Your task to perform on an android device: set default search engine in the chrome app Image 0: 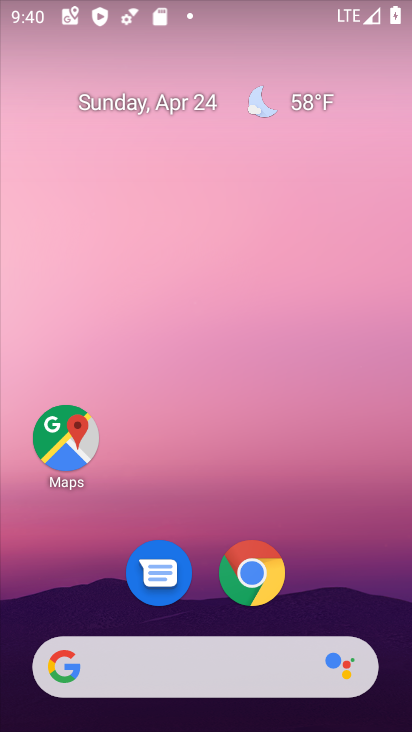
Step 0: click (251, 573)
Your task to perform on an android device: set default search engine in the chrome app Image 1: 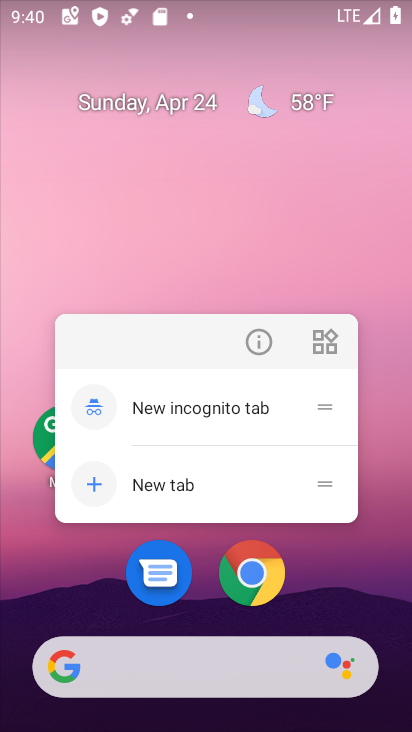
Step 1: click (251, 573)
Your task to perform on an android device: set default search engine in the chrome app Image 2: 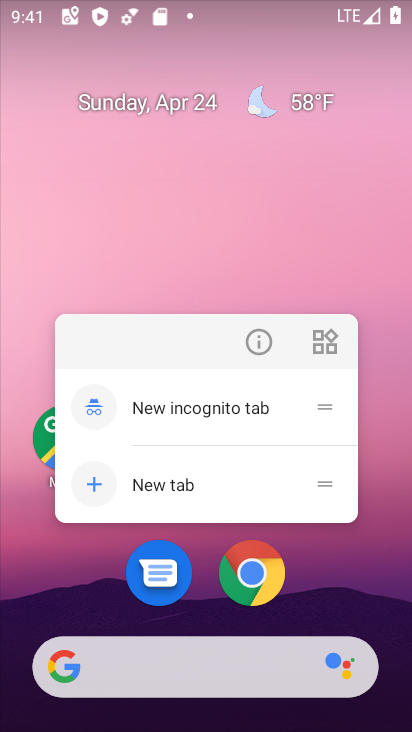
Step 2: drag from (359, 576) to (316, 45)
Your task to perform on an android device: set default search engine in the chrome app Image 3: 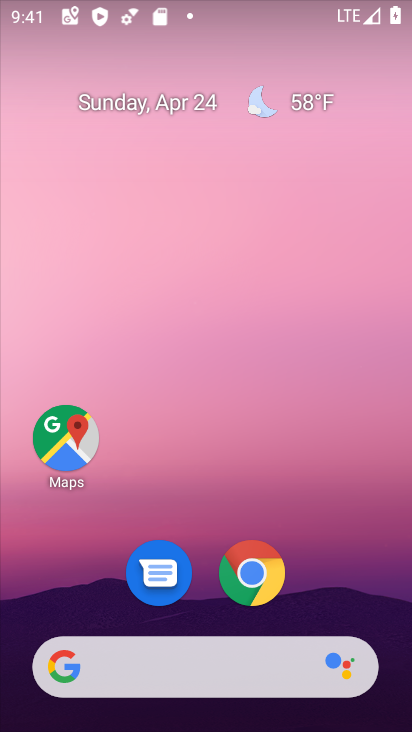
Step 3: drag from (325, 517) to (298, 176)
Your task to perform on an android device: set default search engine in the chrome app Image 4: 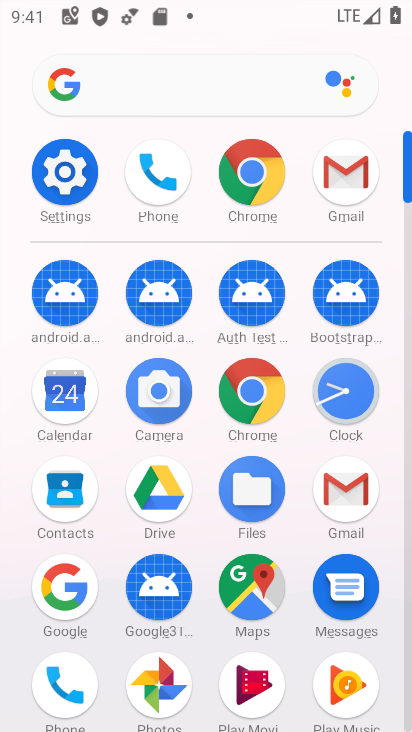
Step 4: click (258, 391)
Your task to perform on an android device: set default search engine in the chrome app Image 5: 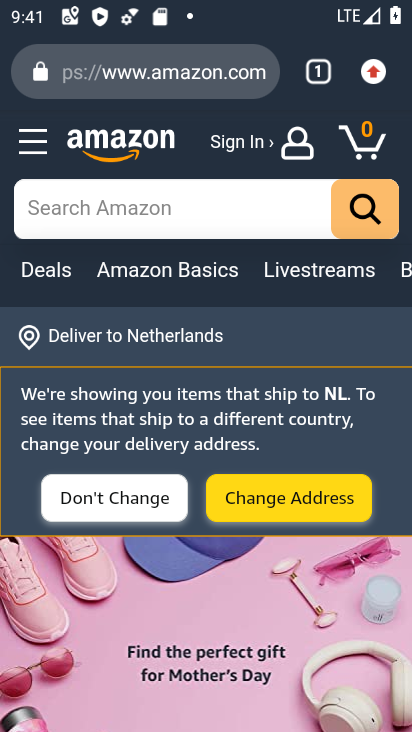
Step 5: drag from (391, 64) to (169, 551)
Your task to perform on an android device: set default search engine in the chrome app Image 6: 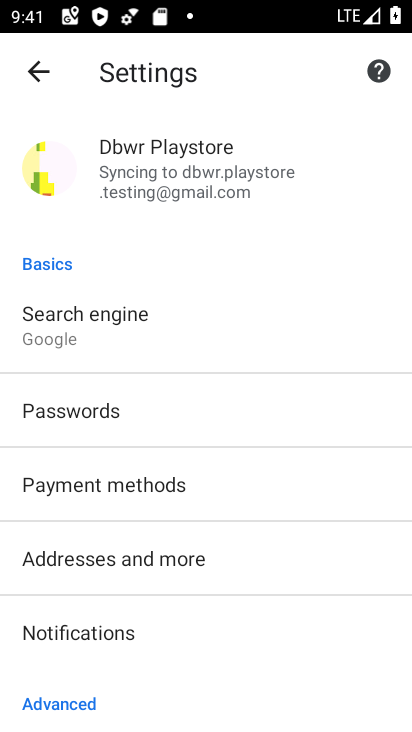
Step 6: drag from (286, 582) to (310, 202)
Your task to perform on an android device: set default search engine in the chrome app Image 7: 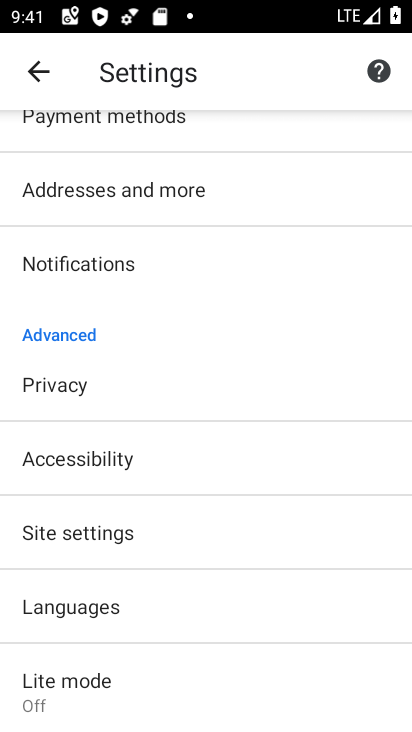
Step 7: drag from (145, 321) to (211, 722)
Your task to perform on an android device: set default search engine in the chrome app Image 8: 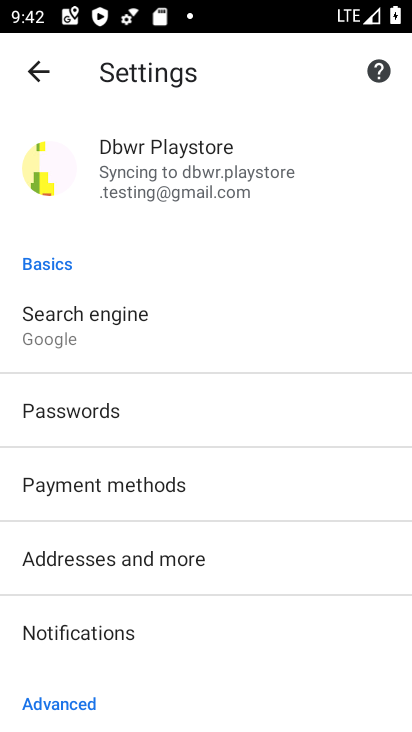
Step 8: click (111, 324)
Your task to perform on an android device: set default search engine in the chrome app Image 9: 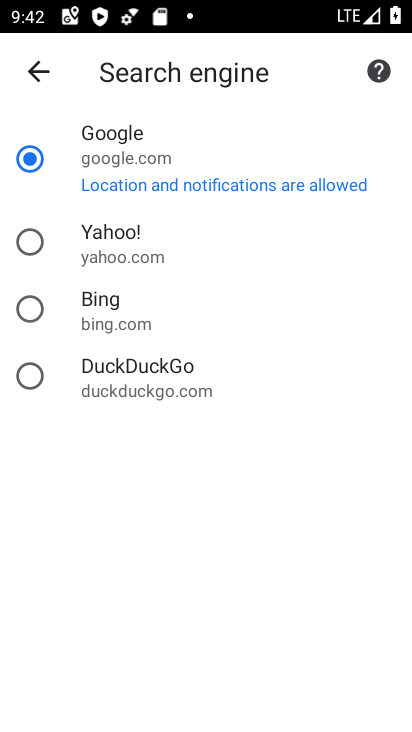
Step 9: task complete